Your task to perform on an android device: change the upload size in google photos Image 0: 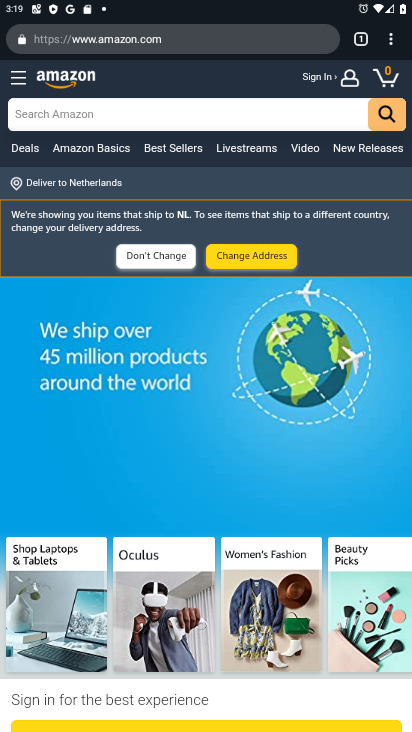
Step 0: press home button
Your task to perform on an android device: change the upload size in google photos Image 1: 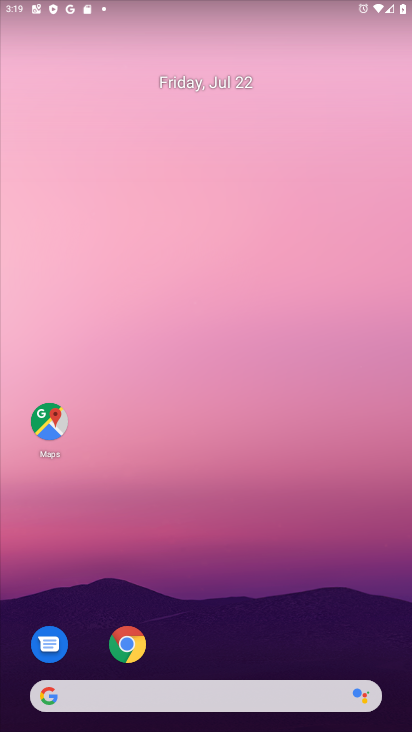
Step 1: drag from (283, 657) to (222, 246)
Your task to perform on an android device: change the upload size in google photos Image 2: 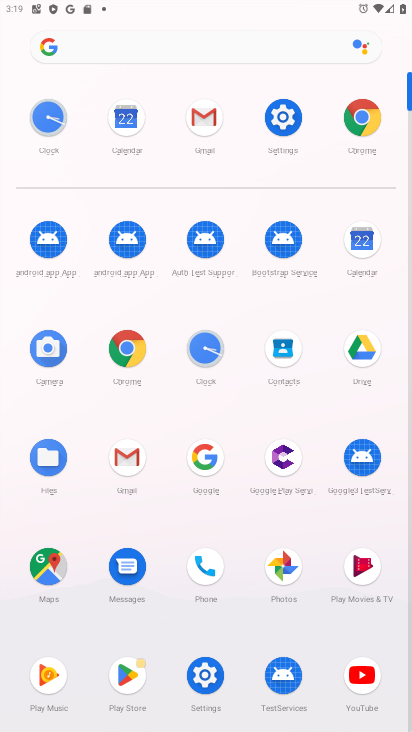
Step 2: click (282, 568)
Your task to perform on an android device: change the upload size in google photos Image 3: 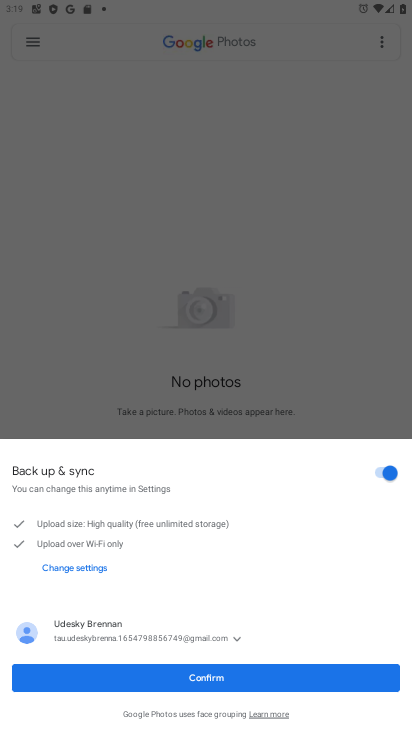
Step 3: click (287, 673)
Your task to perform on an android device: change the upload size in google photos Image 4: 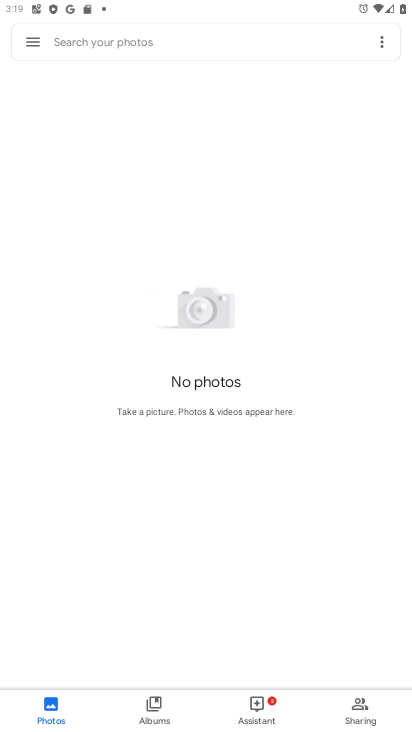
Step 4: task complete